Your task to perform on an android device: Open Google Chrome and open the bookmarks view Image 0: 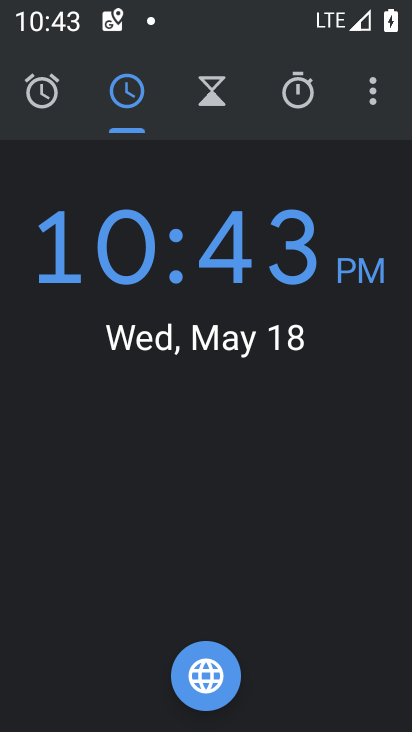
Step 0: press home button
Your task to perform on an android device: Open Google Chrome and open the bookmarks view Image 1: 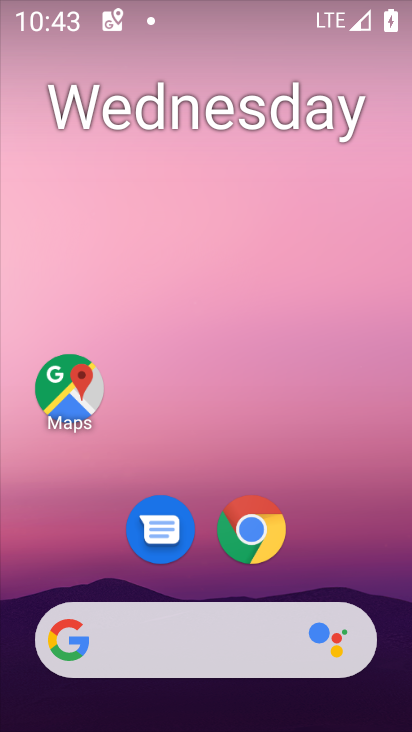
Step 1: click (250, 529)
Your task to perform on an android device: Open Google Chrome and open the bookmarks view Image 2: 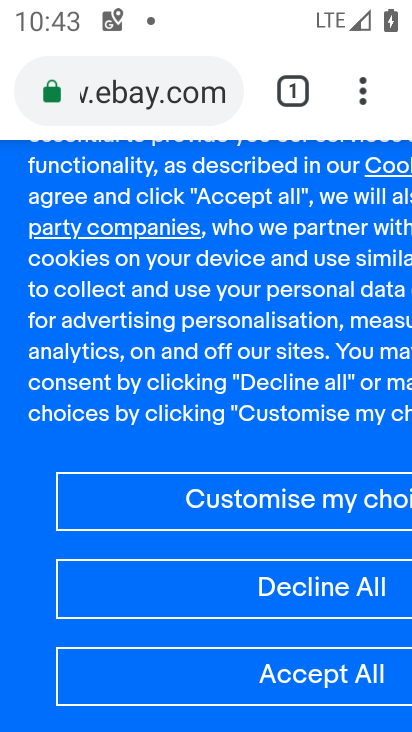
Step 2: click (361, 97)
Your task to perform on an android device: Open Google Chrome and open the bookmarks view Image 3: 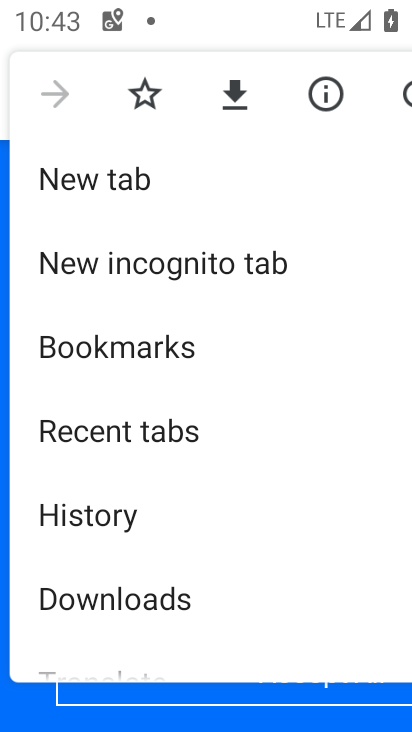
Step 3: click (207, 596)
Your task to perform on an android device: Open Google Chrome and open the bookmarks view Image 4: 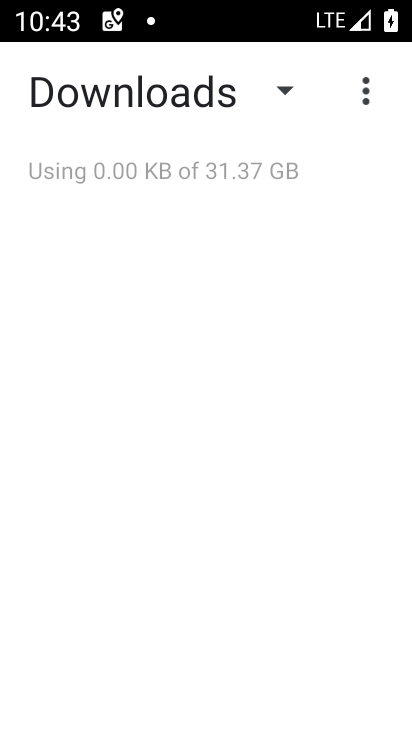
Step 4: press back button
Your task to perform on an android device: Open Google Chrome and open the bookmarks view Image 5: 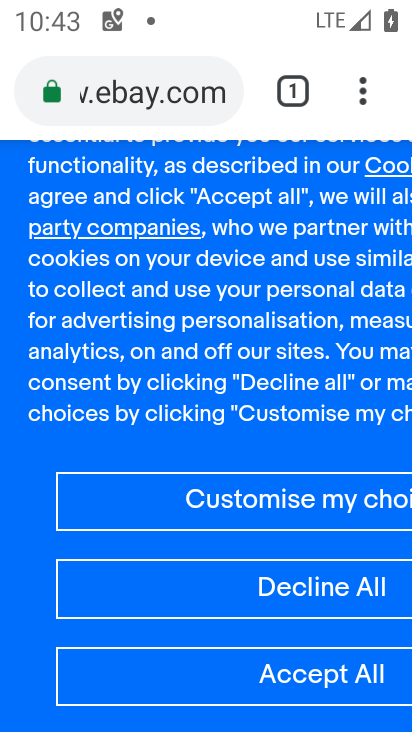
Step 5: click (362, 100)
Your task to perform on an android device: Open Google Chrome and open the bookmarks view Image 6: 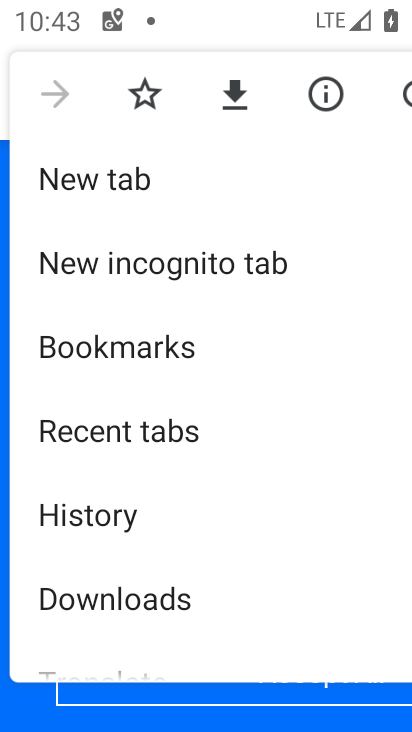
Step 6: click (105, 340)
Your task to perform on an android device: Open Google Chrome and open the bookmarks view Image 7: 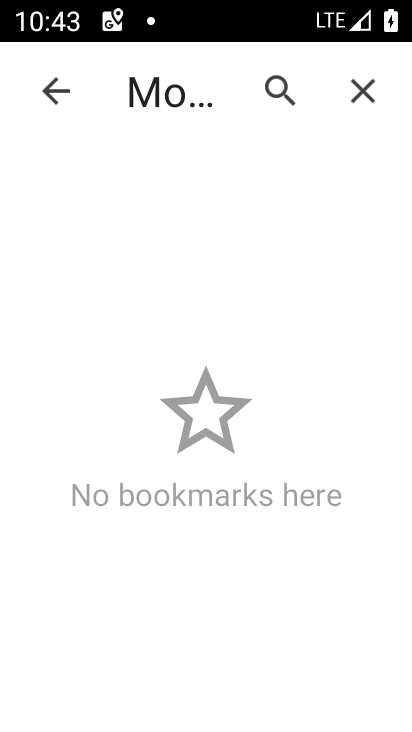
Step 7: task complete